Your task to perform on an android device: delete browsing data in the chrome app Image 0: 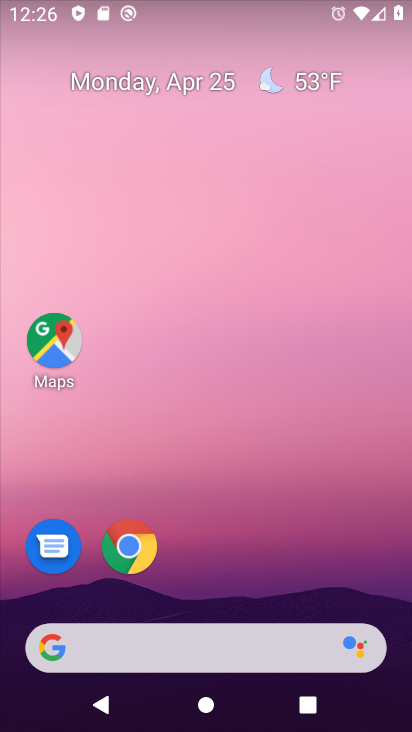
Step 0: click (132, 559)
Your task to perform on an android device: delete browsing data in the chrome app Image 1: 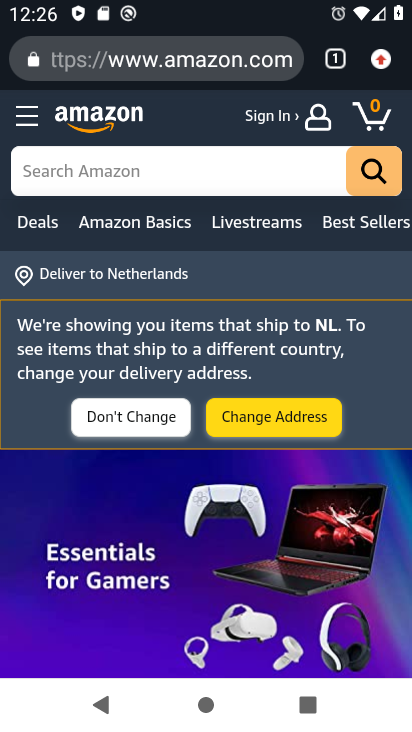
Step 1: drag from (380, 61) to (218, 400)
Your task to perform on an android device: delete browsing data in the chrome app Image 2: 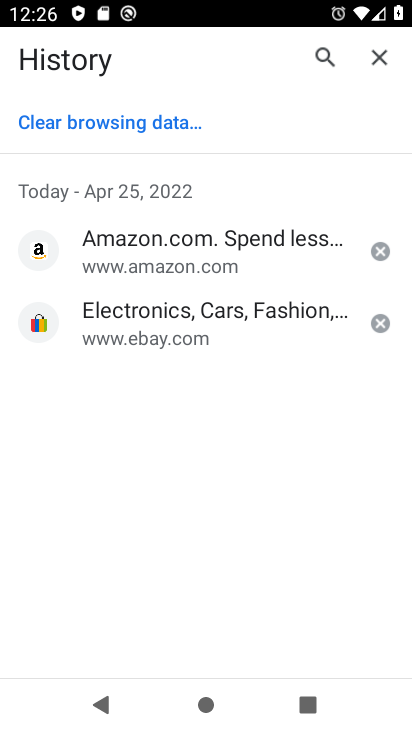
Step 2: click (111, 126)
Your task to perform on an android device: delete browsing data in the chrome app Image 3: 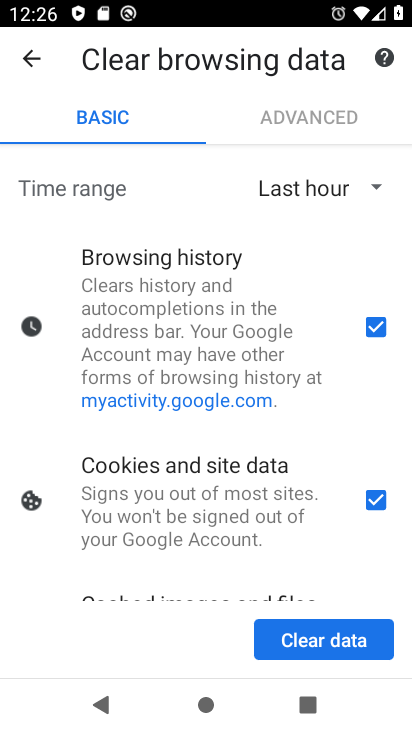
Step 3: click (342, 642)
Your task to perform on an android device: delete browsing data in the chrome app Image 4: 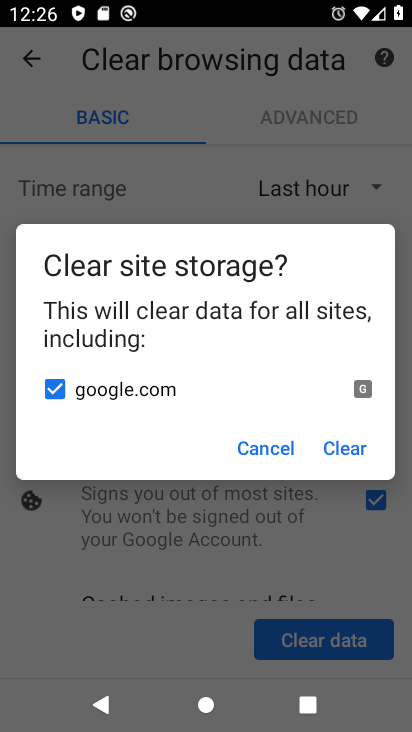
Step 4: click (340, 441)
Your task to perform on an android device: delete browsing data in the chrome app Image 5: 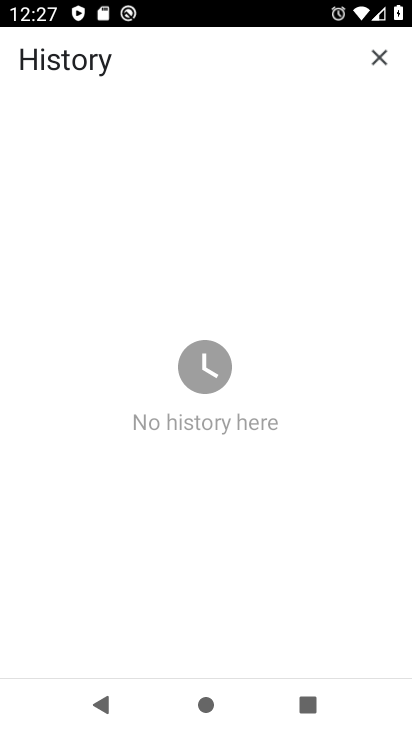
Step 5: task complete